Your task to perform on an android device: Search for sushi restaurants on Maps Image 0: 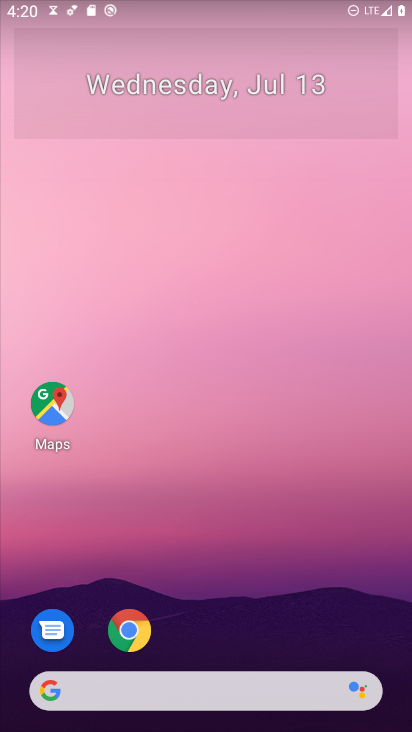
Step 0: click (44, 390)
Your task to perform on an android device: Search for sushi restaurants on Maps Image 1: 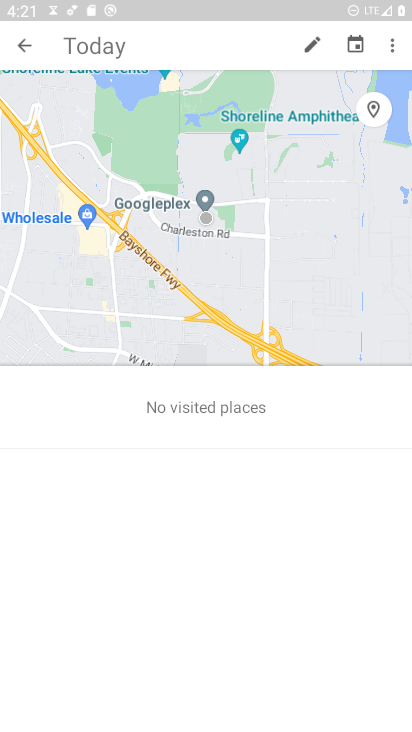
Step 1: click (24, 39)
Your task to perform on an android device: Search for sushi restaurants on Maps Image 2: 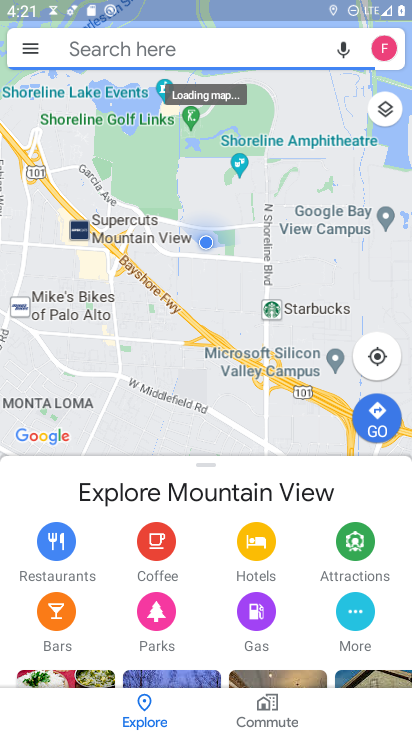
Step 2: type "sushi restaurants"
Your task to perform on an android device: Search for sushi restaurants on Maps Image 3: 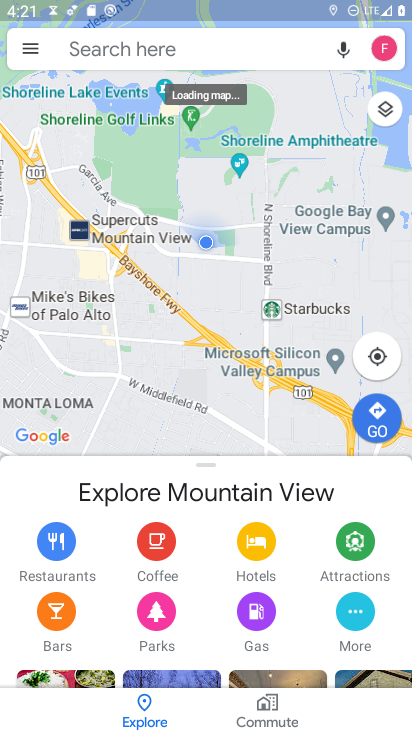
Step 3: click (121, 40)
Your task to perform on an android device: Search for sushi restaurants on Maps Image 4: 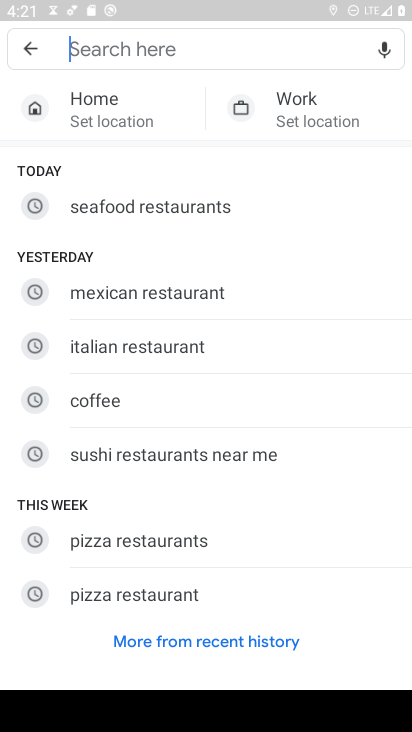
Step 4: type "sushi restaurants"
Your task to perform on an android device: Search for sushi restaurants on Maps Image 5: 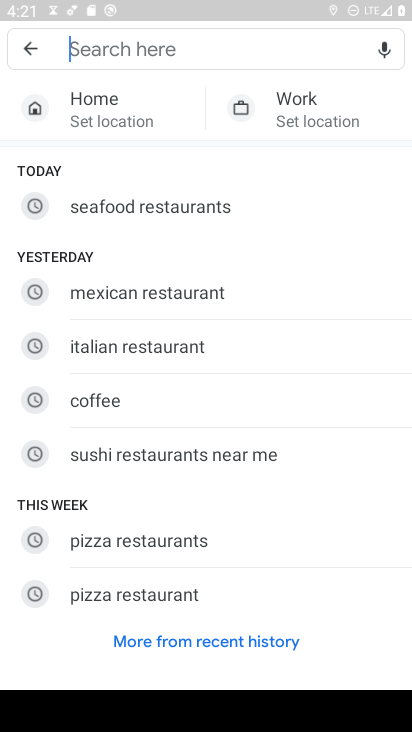
Step 5: click (136, 54)
Your task to perform on an android device: Search for sushi restaurants on Maps Image 6: 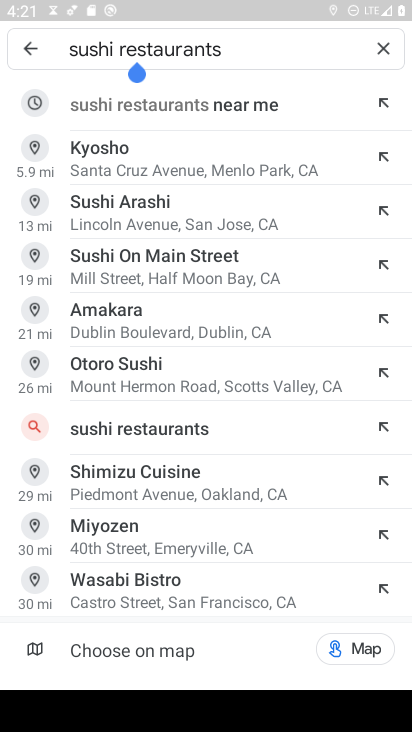
Step 6: press enter
Your task to perform on an android device: Search for sushi restaurants on Maps Image 7: 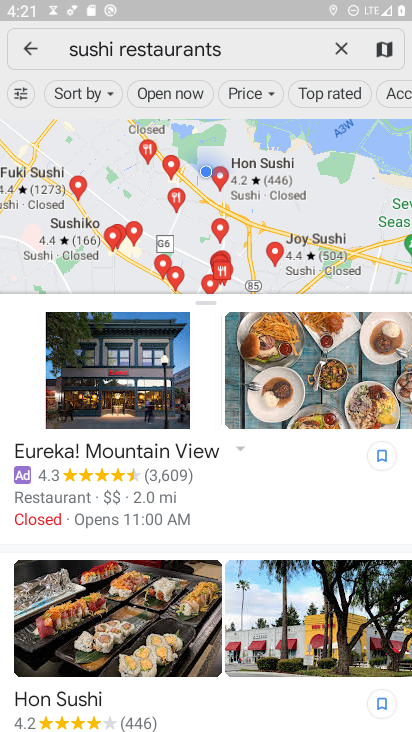
Step 7: task complete